Your task to perform on an android device: Turn on the flashlight Image 0: 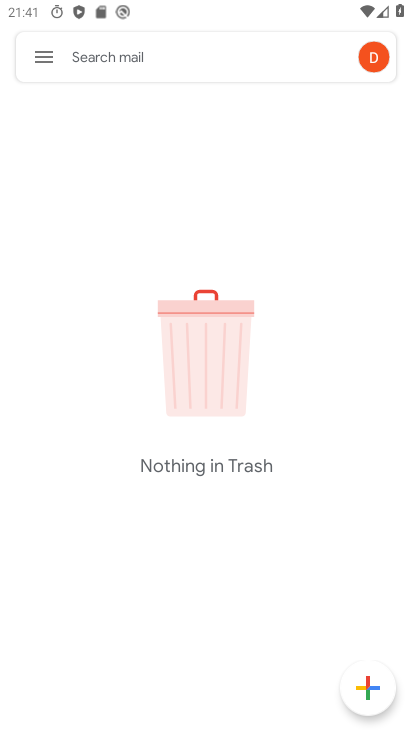
Step 0: press home button
Your task to perform on an android device: Turn on the flashlight Image 1: 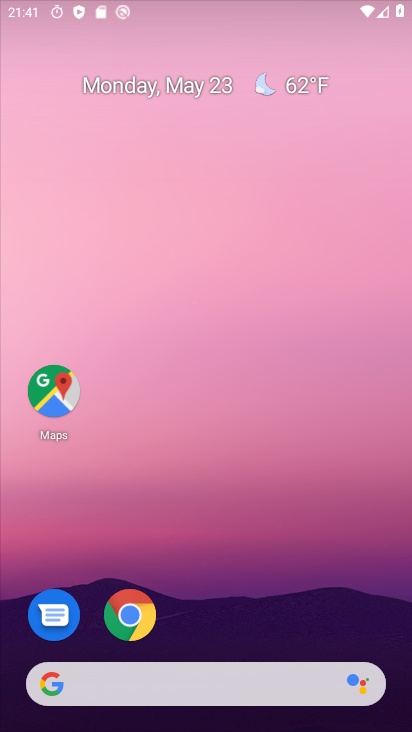
Step 1: drag from (236, 629) to (271, 135)
Your task to perform on an android device: Turn on the flashlight Image 2: 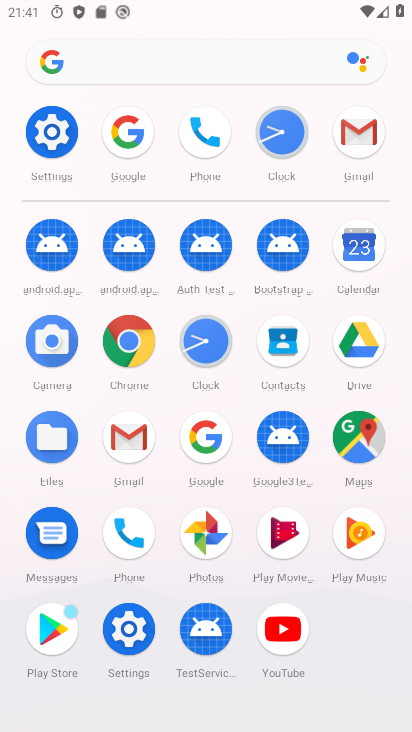
Step 2: click (49, 134)
Your task to perform on an android device: Turn on the flashlight Image 3: 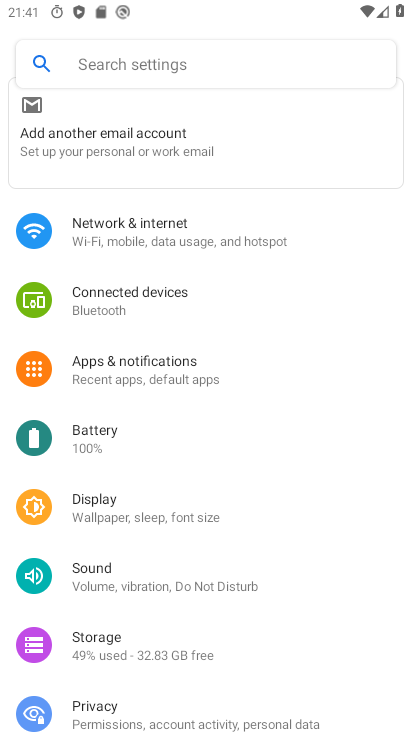
Step 3: click (192, 65)
Your task to perform on an android device: Turn on the flashlight Image 4: 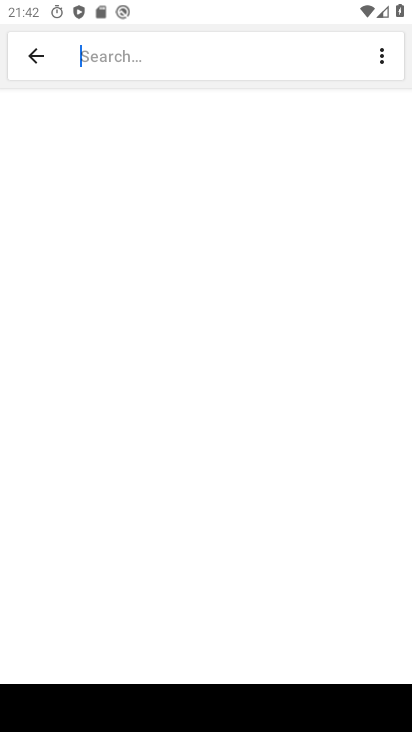
Step 4: type "flash"
Your task to perform on an android device: Turn on the flashlight Image 5: 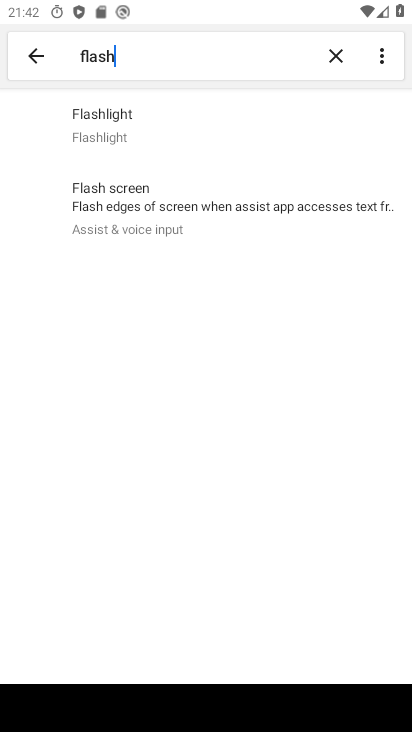
Step 5: task complete